Your task to perform on an android device: Open Reddit.com Image 0: 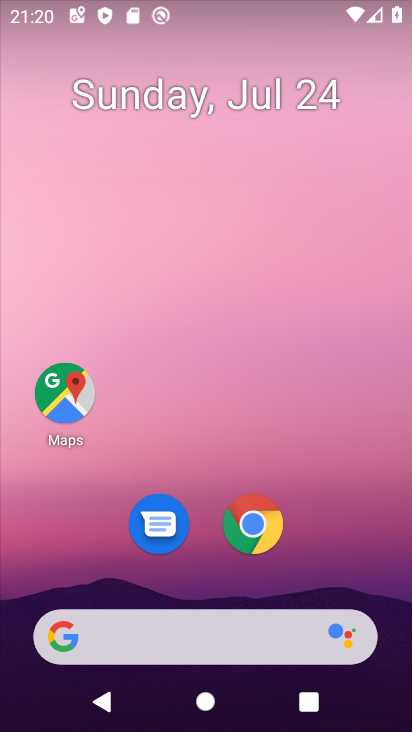
Step 0: click (258, 516)
Your task to perform on an android device: Open Reddit.com Image 1: 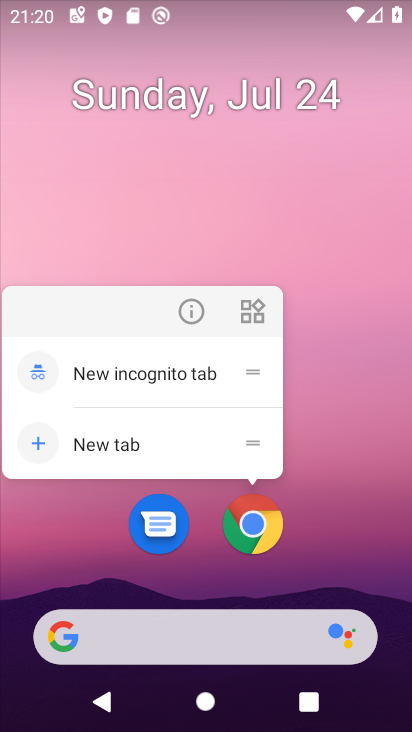
Step 1: click (256, 522)
Your task to perform on an android device: Open Reddit.com Image 2: 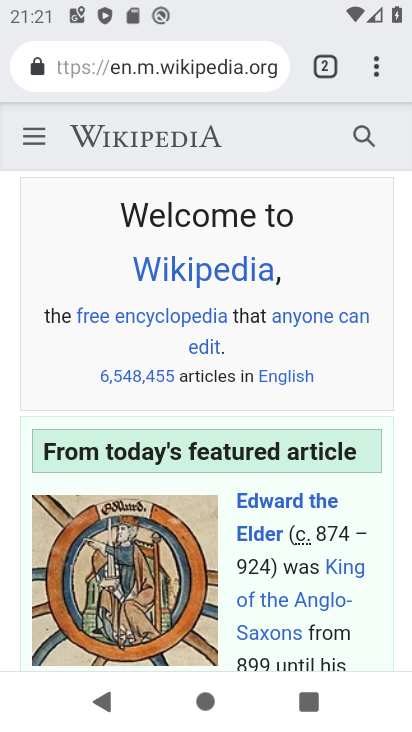
Step 2: drag from (373, 79) to (266, 128)
Your task to perform on an android device: Open Reddit.com Image 3: 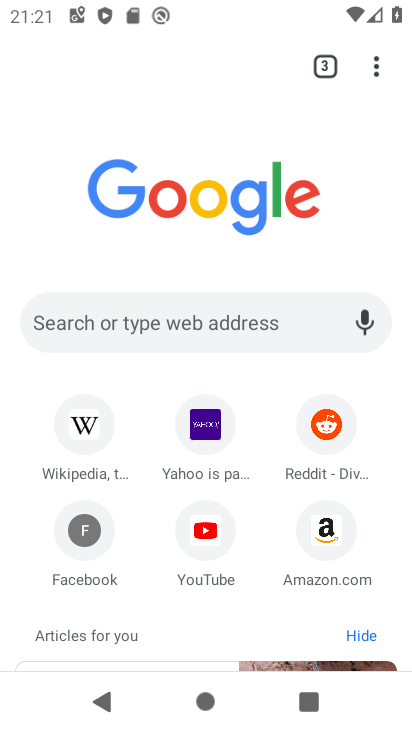
Step 3: click (334, 426)
Your task to perform on an android device: Open Reddit.com Image 4: 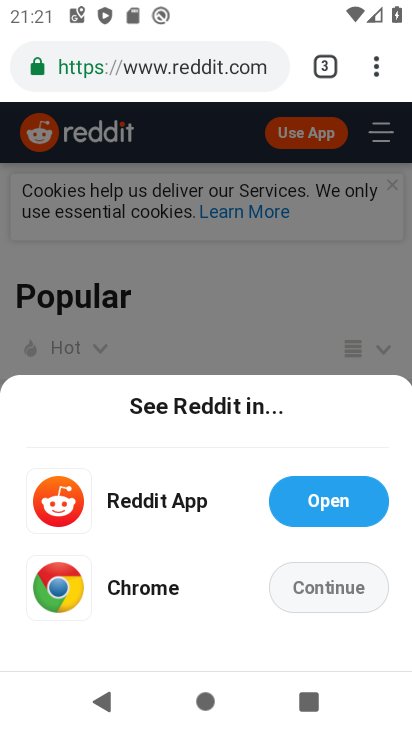
Step 4: task complete